Your task to perform on an android device: Show me recent news Image 0: 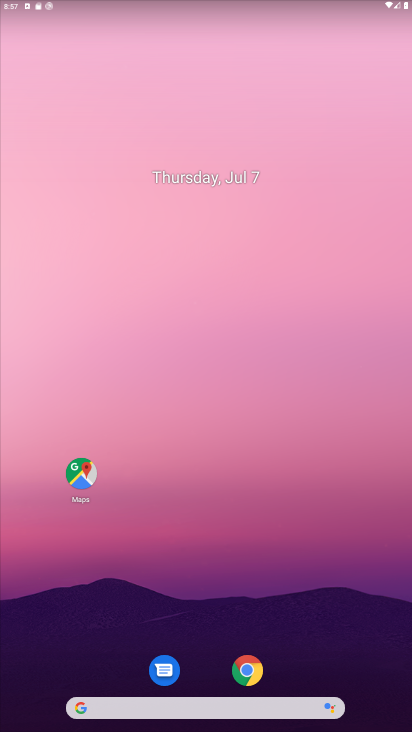
Step 0: click (187, 716)
Your task to perform on an android device: Show me recent news Image 1: 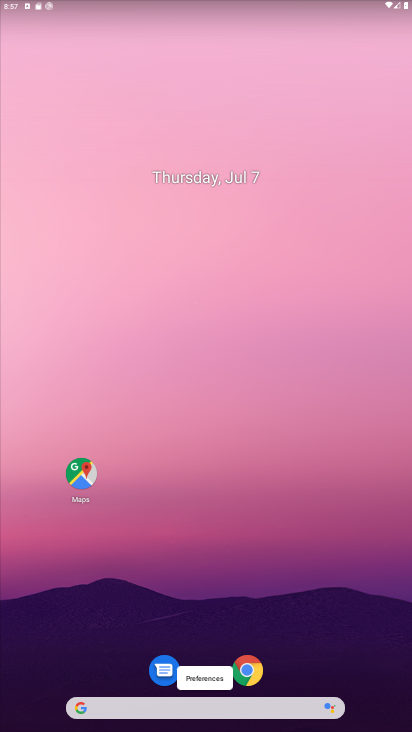
Step 1: click (197, 696)
Your task to perform on an android device: Show me recent news Image 2: 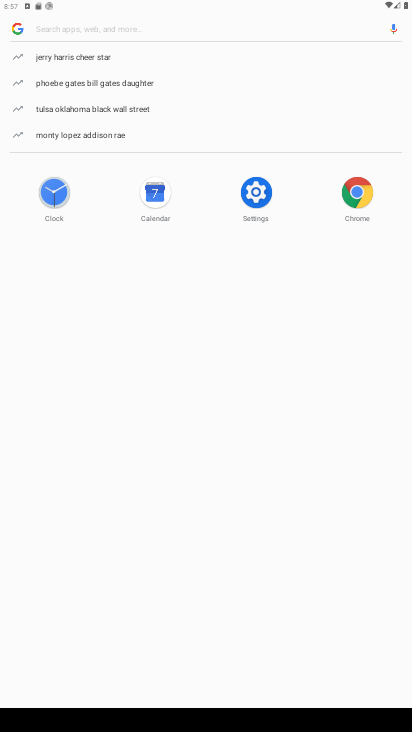
Step 2: drag from (213, 665) to (398, 728)
Your task to perform on an android device: Show me recent news Image 3: 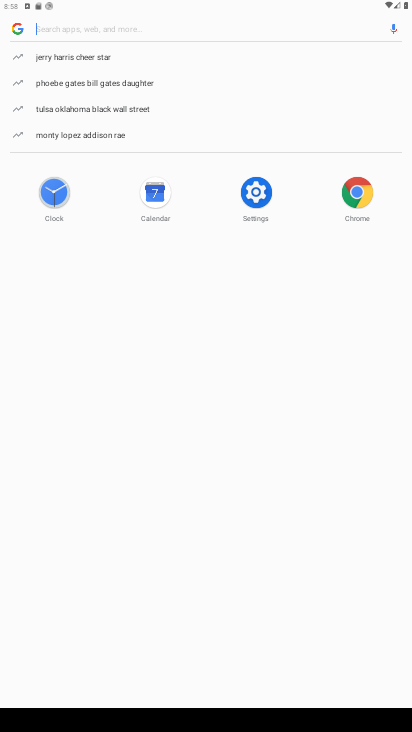
Step 3: type "news"
Your task to perform on an android device: Show me recent news Image 4: 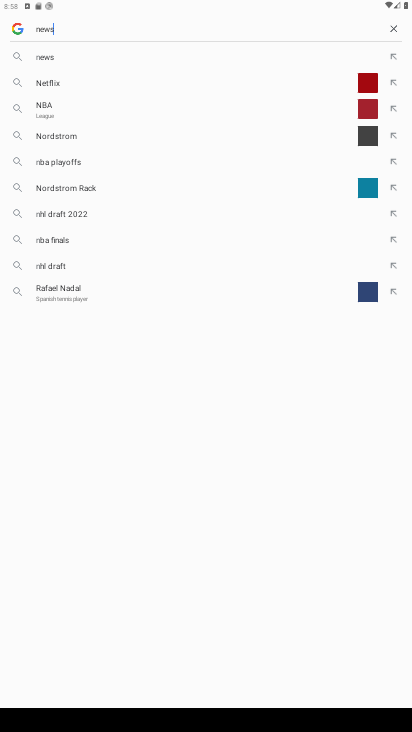
Step 4: type ""
Your task to perform on an android device: Show me recent news Image 5: 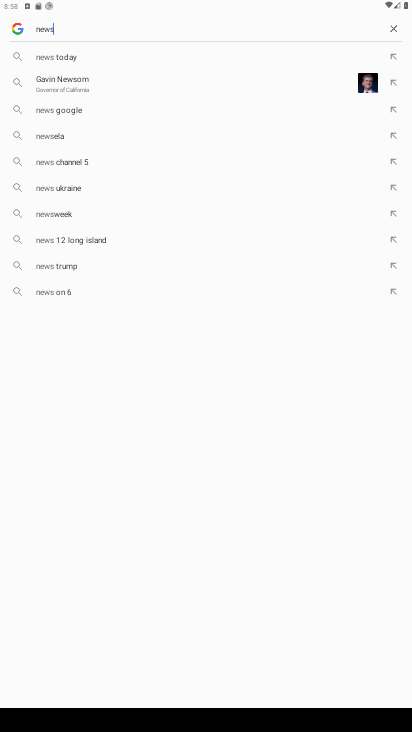
Step 5: click (61, 55)
Your task to perform on an android device: Show me recent news Image 6: 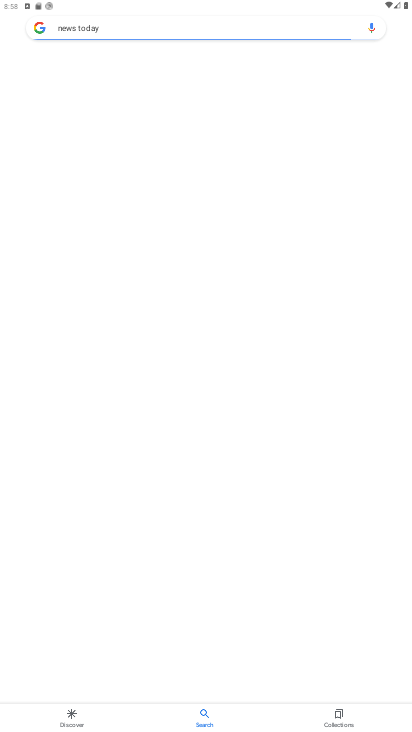
Step 6: task complete